Your task to perform on an android device: Open calendar and show me the second week of next month Image 0: 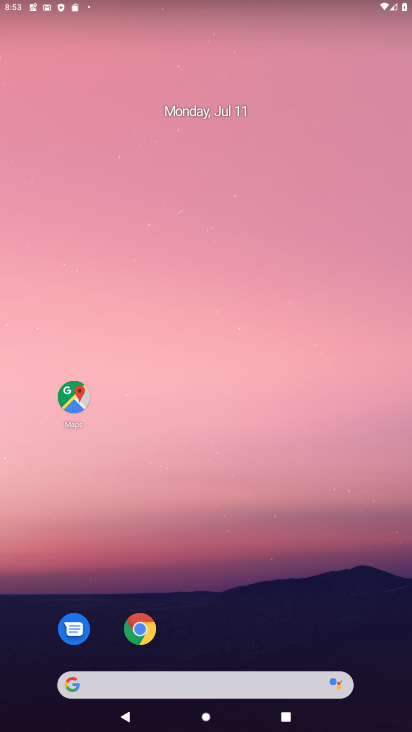
Step 0: drag from (252, 587) to (305, 63)
Your task to perform on an android device: Open calendar and show me the second week of next month Image 1: 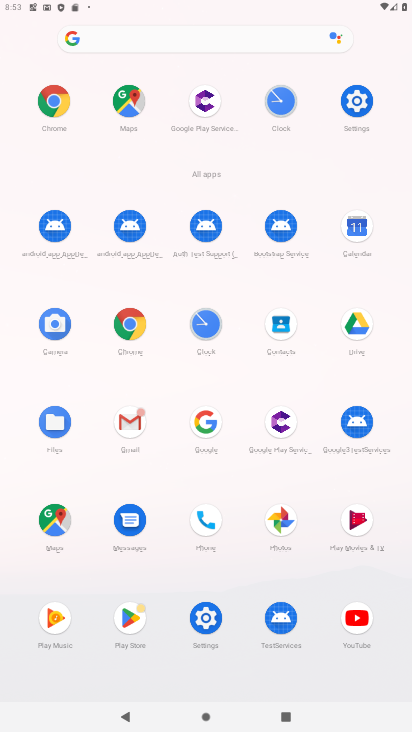
Step 1: click (362, 213)
Your task to perform on an android device: Open calendar and show me the second week of next month Image 2: 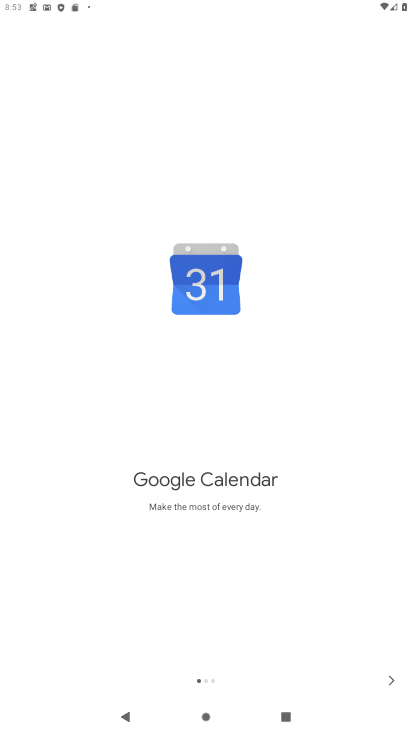
Step 2: click (391, 671)
Your task to perform on an android device: Open calendar and show me the second week of next month Image 3: 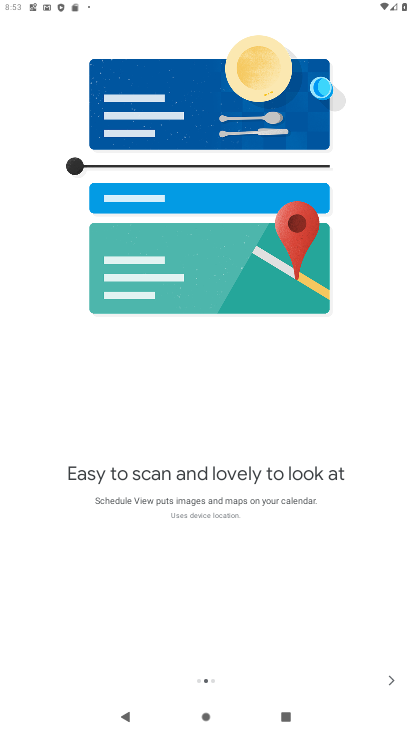
Step 3: click (389, 667)
Your task to perform on an android device: Open calendar and show me the second week of next month Image 4: 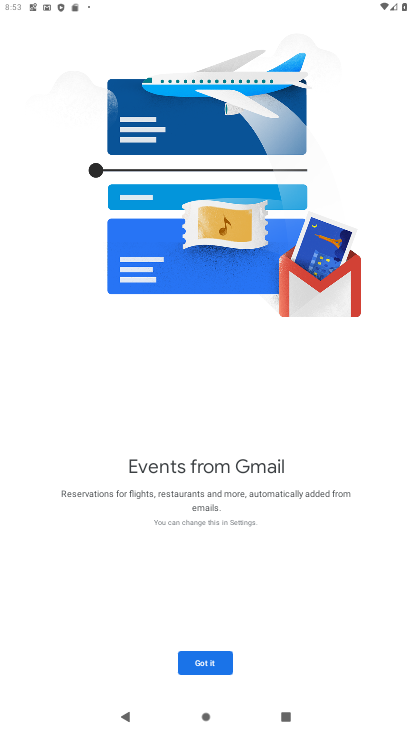
Step 4: click (203, 668)
Your task to perform on an android device: Open calendar and show me the second week of next month Image 5: 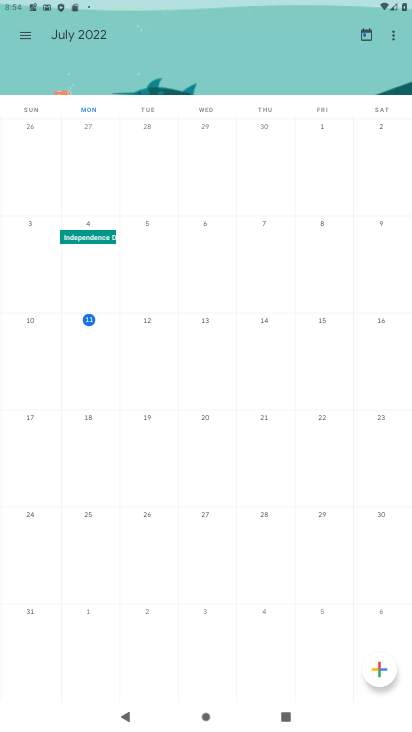
Step 5: click (29, 31)
Your task to perform on an android device: Open calendar and show me the second week of next month Image 6: 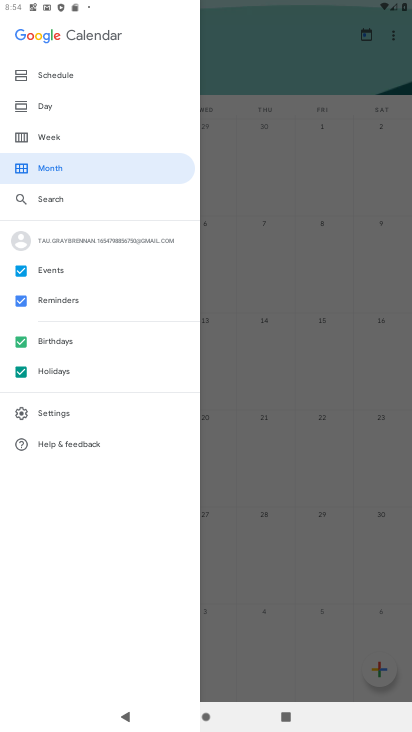
Step 6: click (48, 135)
Your task to perform on an android device: Open calendar and show me the second week of next month Image 7: 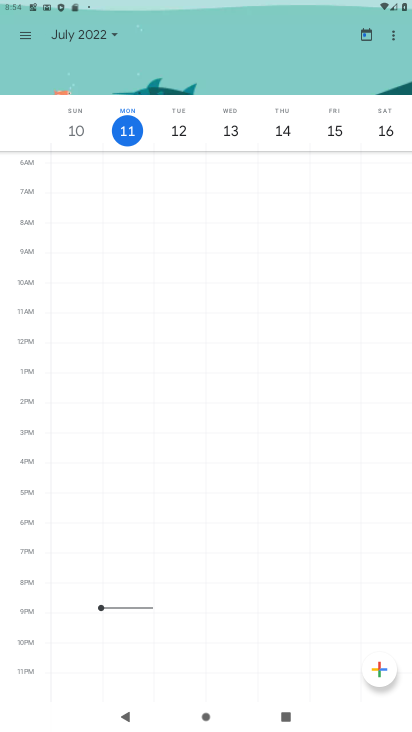
Step 7: click (109, 31)
Your task to perform on an android device: Open calendar and show me the second week of next month Image 8: 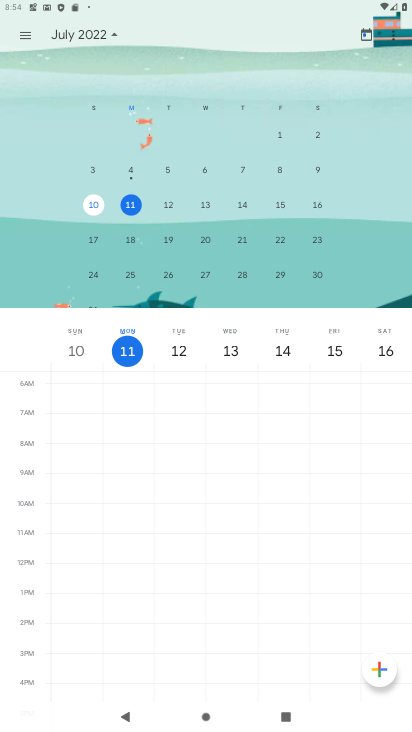
Step 8: drag from (277, 191) to (31, 161)
Your task to perform on an android device: Open calendar and show me the second week of next month Image 9: 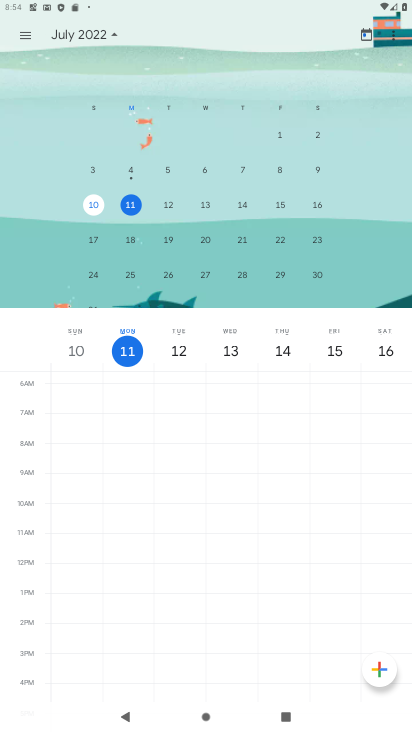
Step 9: drag from (166, 207) to (11, 199)
Your task to perform on an android device: Open calendar and show me the second week of next month Image 10: 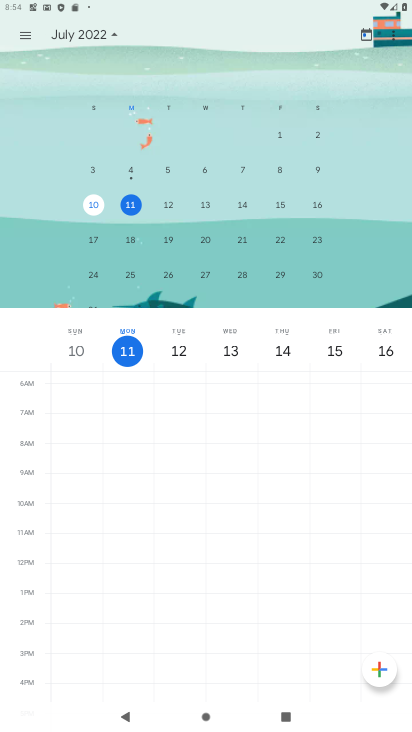
Step 10: drag from (343, 198) to (10, 165)
Your task to perform on an android device: Open calendar and show me the second week of next month Image 11: 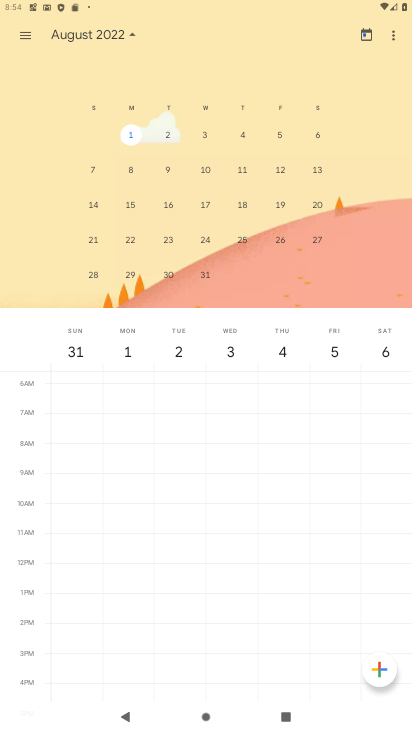
Step 11: click (206, 167)
Your task to perform on an android device: Open calendar and show me the second week of next month Image 12: 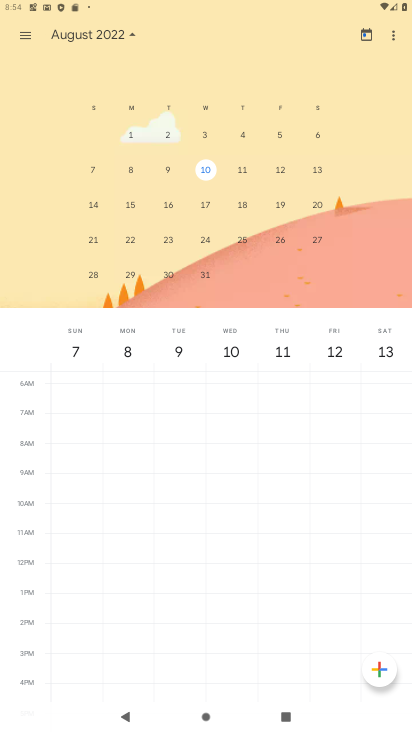
Step 12: task complete